Your task to perform on an android device: Go to ESPN.com Image 0: 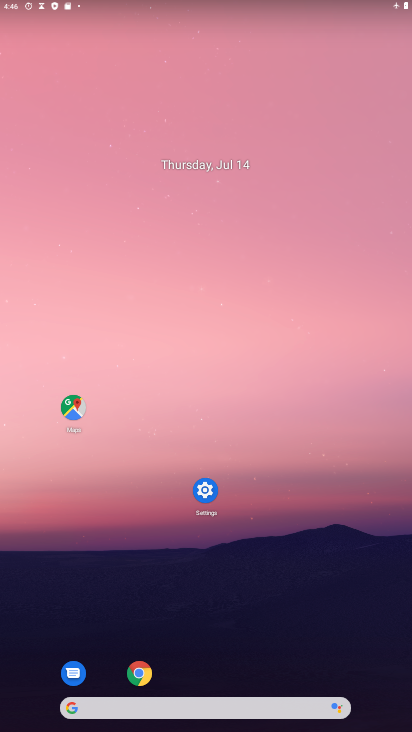
Step 0: drag from (226, 447) to (193, 222)
Your task to perform on an android device: Go to ESPN.com Image 1: 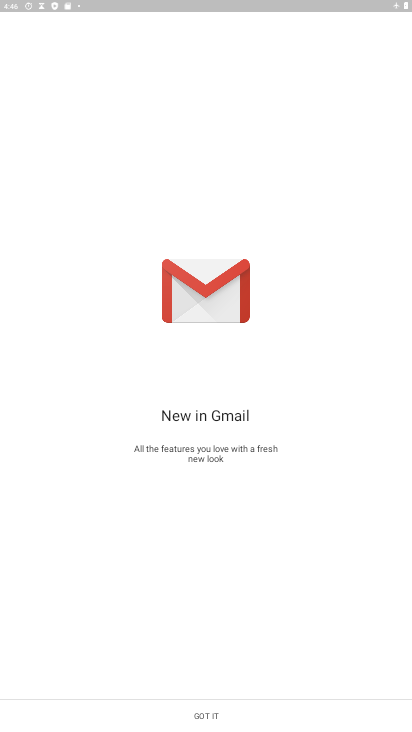
Step 1: press back button
Your task to perform on an android device: Go to ESPN.com Image 2: 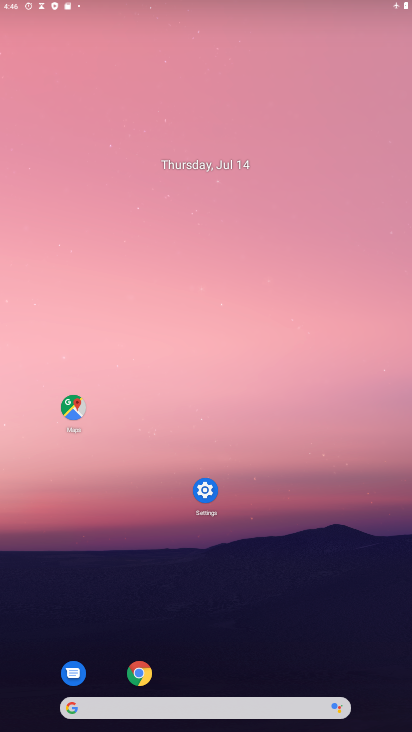
Step 2: drag from (221, 638) to (133, 44)
Your task to perform on an android device: Go to ESPN.com Image 3: 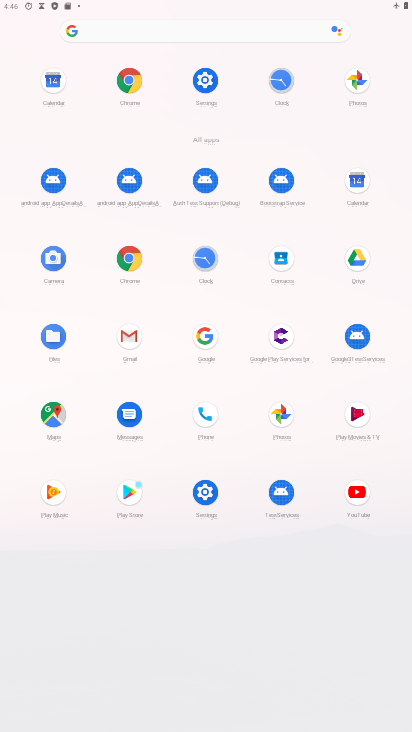
Step 3: click (125, 259)
Your task to perform on an android device: Go to ESPN.com Image 4: 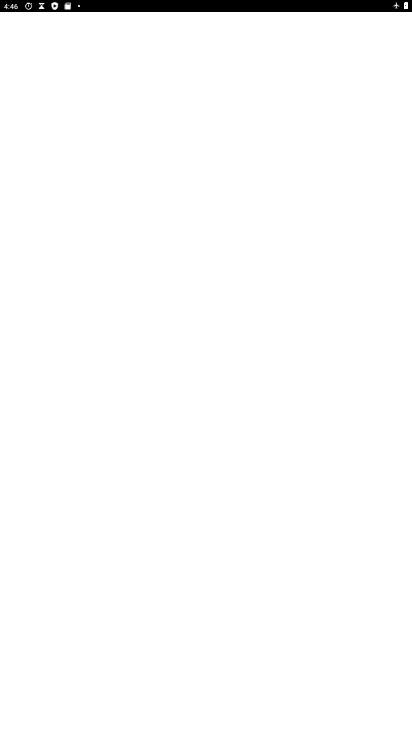
Step 4: click (126, 260)
Your task to perform on an android device: Go to ESPN.com Image 5: 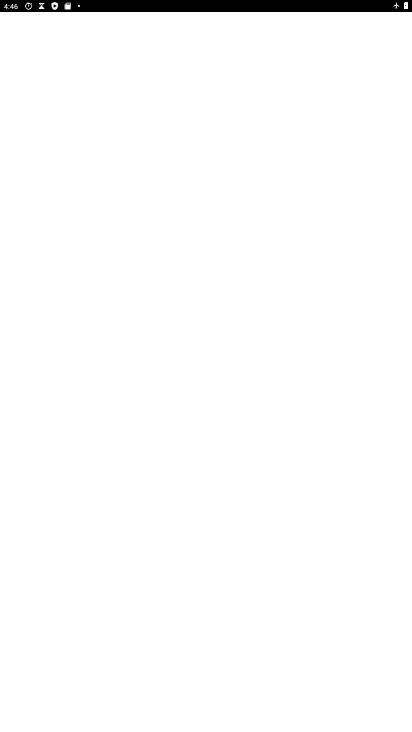
Step 5: click (126, 260)
Your task to perform on an android device: Go to ESPN.com Image 6: 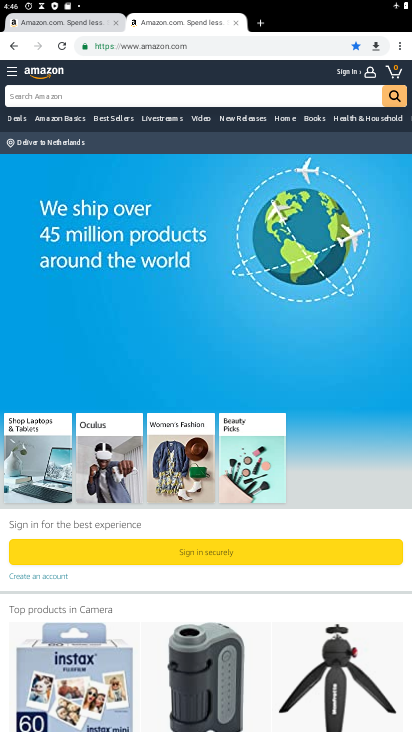
Step 6: drag from (399, 48) to (305, 46)
Your task to perform on an android device: Go to ESPN.com Image 7: 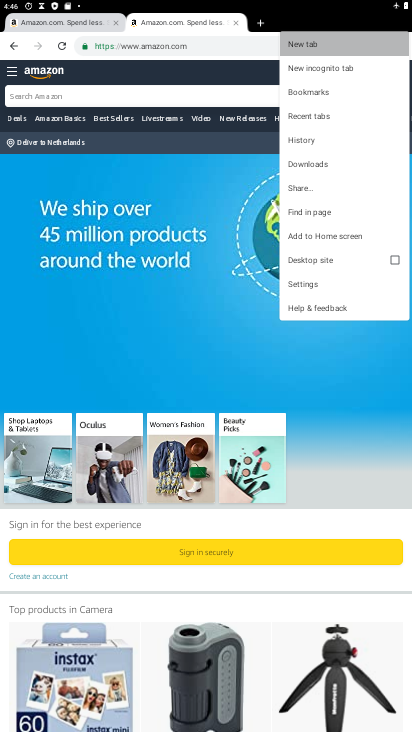
Step 7: click (309, 47)
Your task to perform on an android device: Go to ESPN.com Image 8: 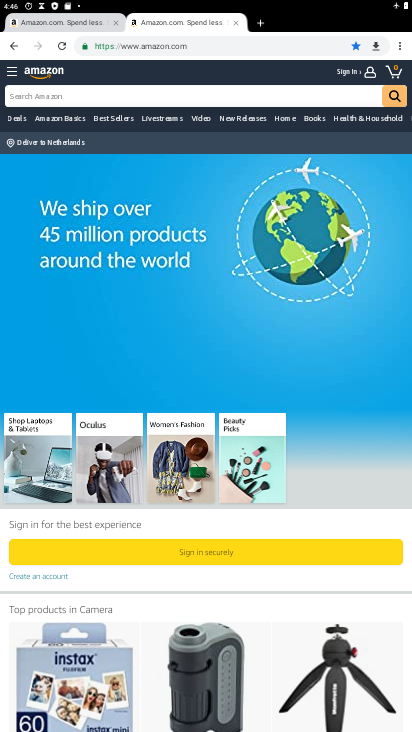
Step 8: click (309, 47)
Your task to perform on an android device: Go to ESPN.com Image 9: 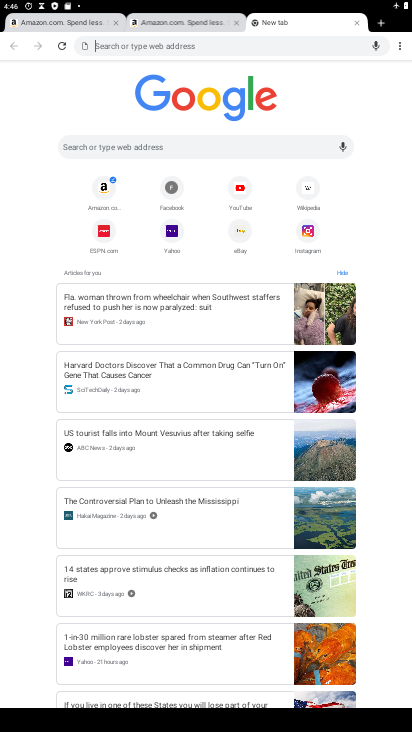
Step 9: click (105, 240)
Your task to perform on an android device: Go to ESPN.com Image 10: 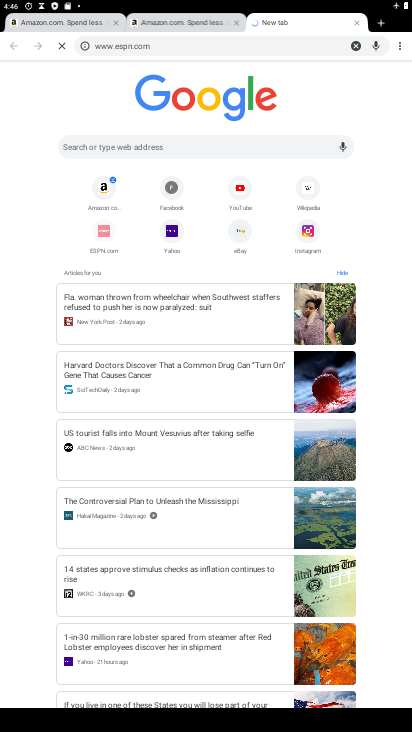
Step 10: click (102, 236)
Your task to perform on an android device: Go to ESPN.com Image 11: 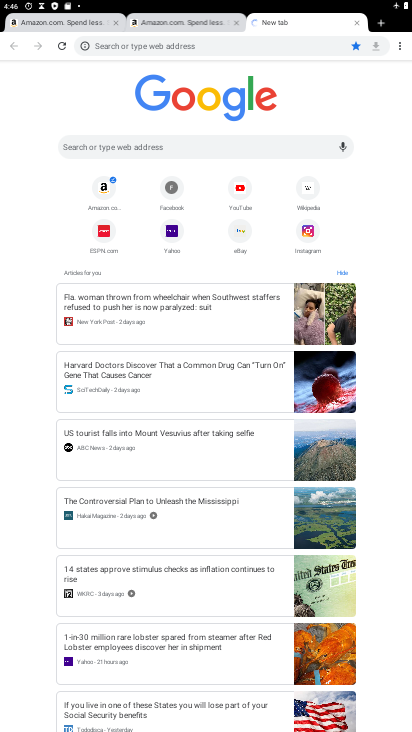
Step 11: click (102, 236)
Your task to perform on an android device: Go to ESPN.com Image 12: 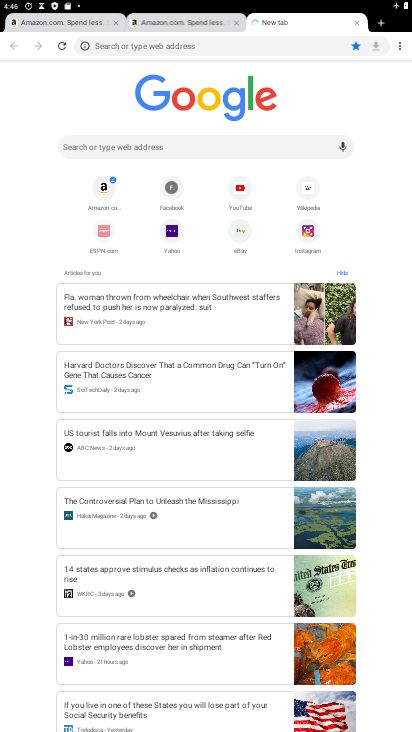
Step 12: click (102, 236)
Your task to perform on an android device: Go to ESPN.com Image 13: 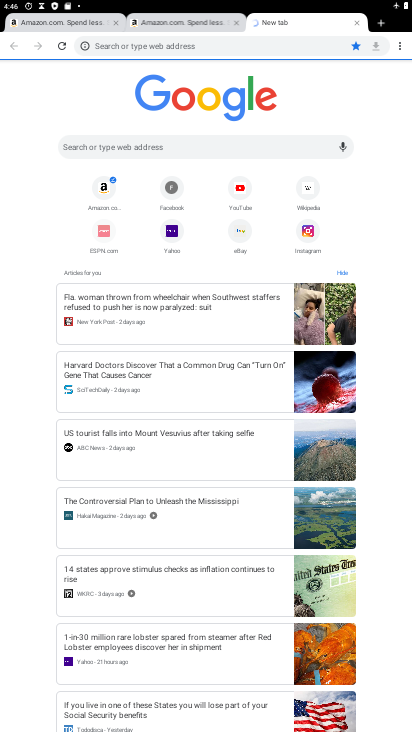
Step 13: click (102, 236)
Your task to perform on an android device: Go to ESPN.com Image 14: 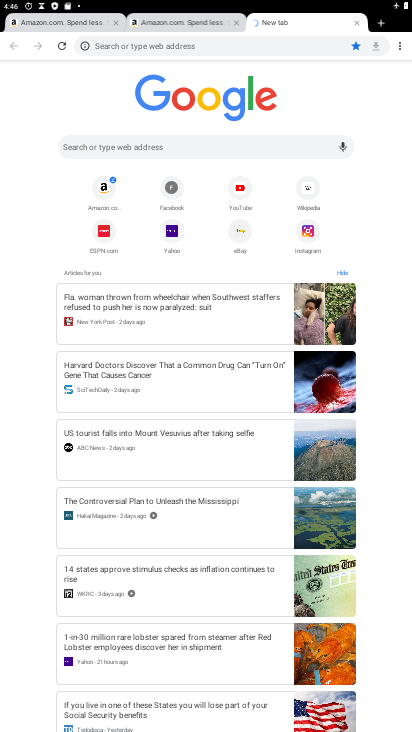
Step 14: click (102, 236)
Your task to perform on an android device: Go to ESPN.com Image 15: 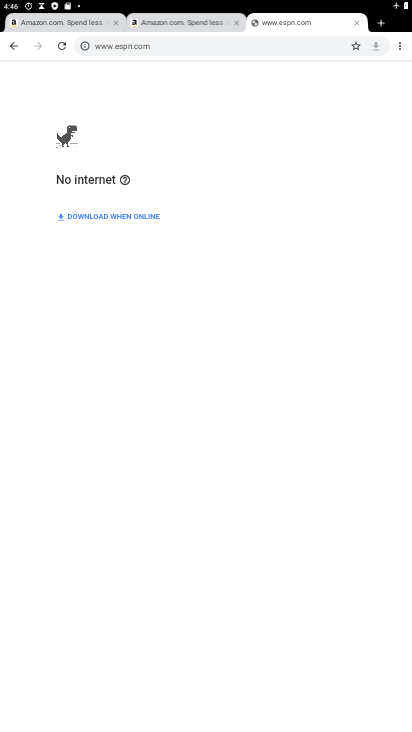
Step 15: task complete